Your task to perform on an android device: add a contact in the contacts app Image 0: 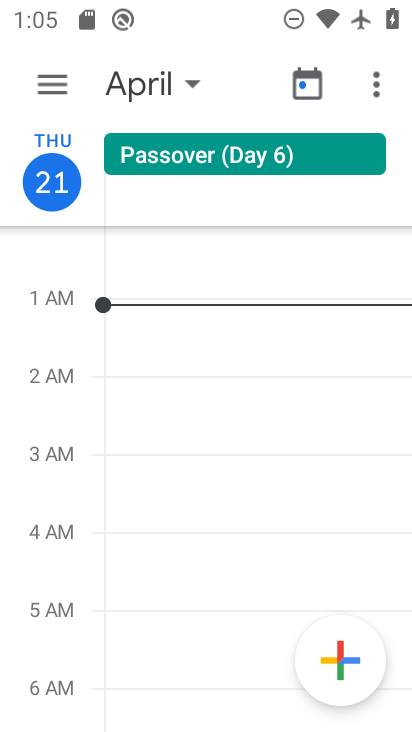
Step 0: press home button
Your task to perform on an android device: add a contact in the contacts app Image 1: 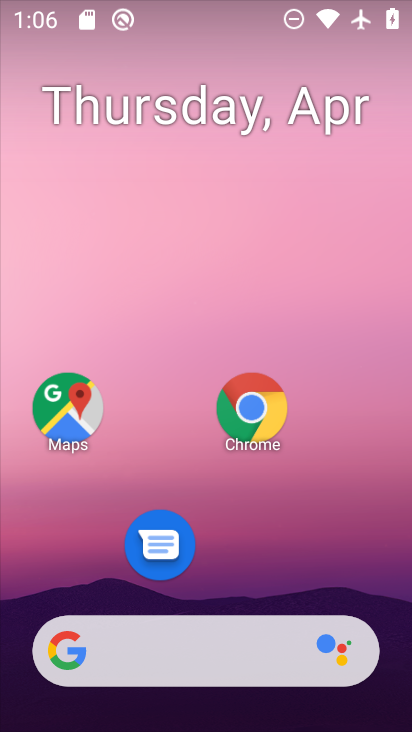
Step 1: drag from (311, 551) to (269, 30)
Your task to perform on an android device: add a contact in the contacts app Image 2: 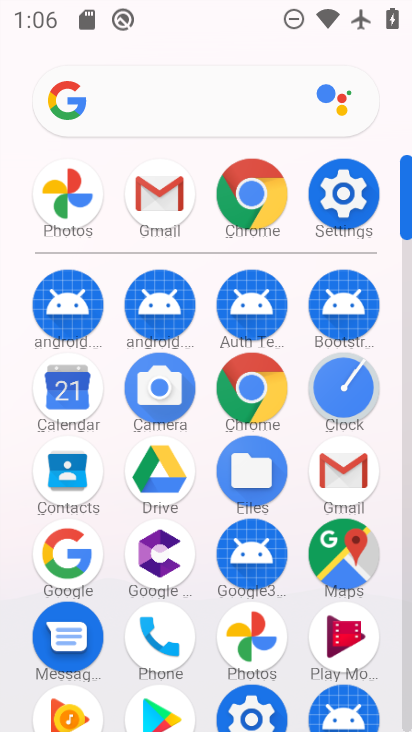
Step 2: click (70, 470)
Your task to perform on an android device: add a contact in the contacts app Image 3: 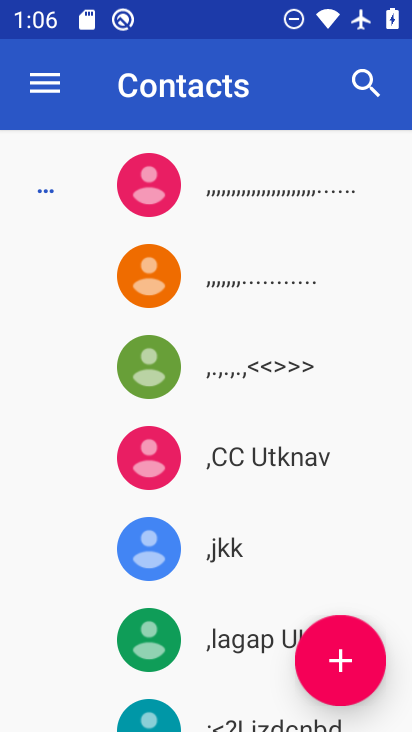
Step 3: click (340, 660)
Your task to perform on an android device: add a contact in the contacts app Image 4: 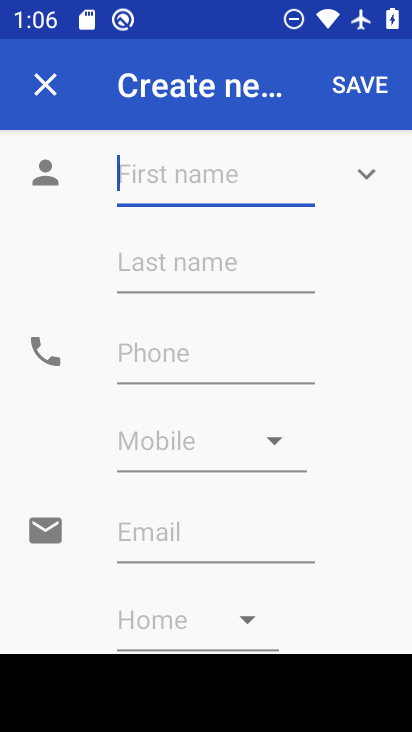
Step 4: type "hola"
Your task to perform on an android device: add a contact in the contacts app Image 5: 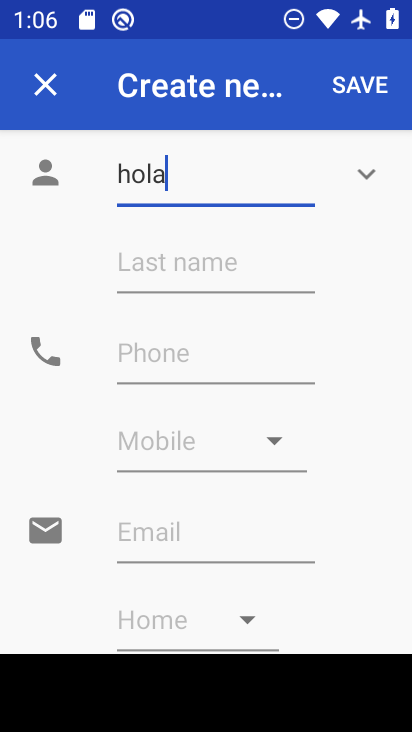
Step 5: click (356, 84)
Your task to perform on an android device: add a contact in the contacts app Image 6: 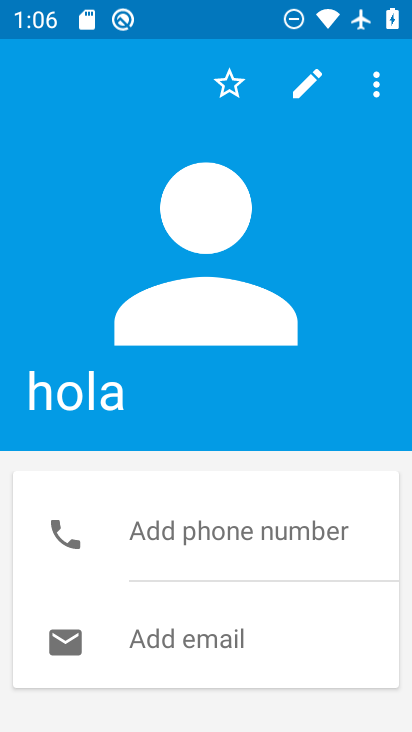
Step 6: task complete